Your task to perform on an android device: Open sound settings Image 0: 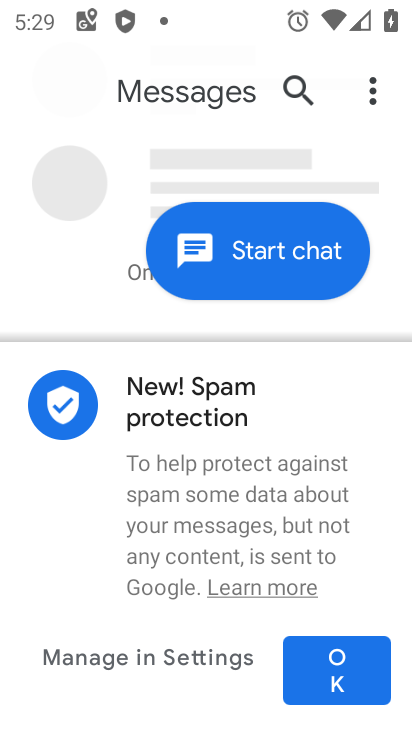
Step 0: press home button
Your task to perform on an android device: Open sound settings Image 1: 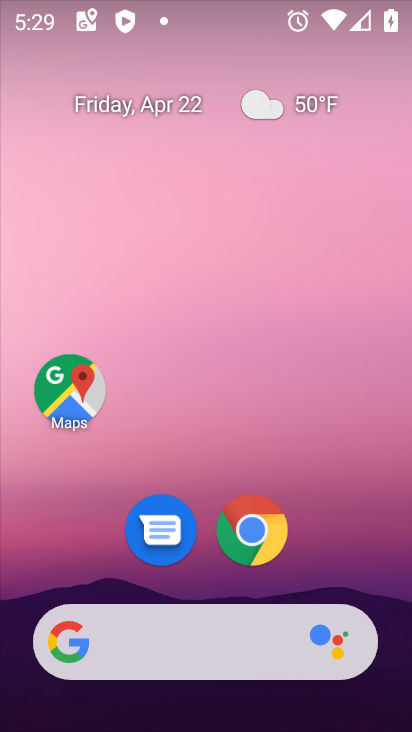
Step 1: drag from (302, 563) to (352, 157)
Your task to perform on an android device: Open sound settings Image 2: 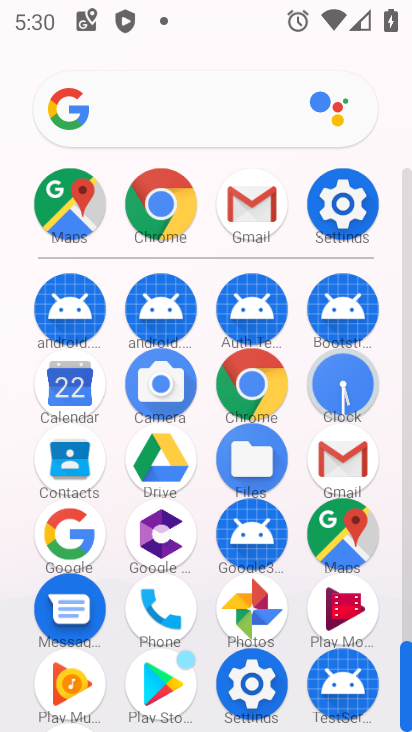
Step 2: click (350, 225)
Your task to perform on an android device: Open sound settings Image 3: 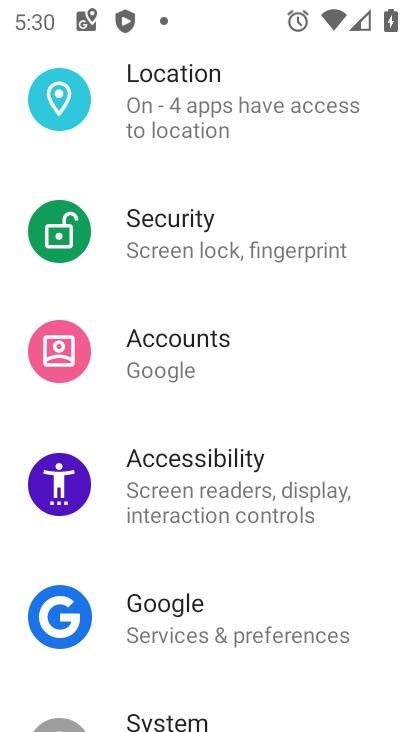
Step 3: drag from (344, 599) to (377, 239)
Your task to perform on an android device: Open sound settings Image 4: 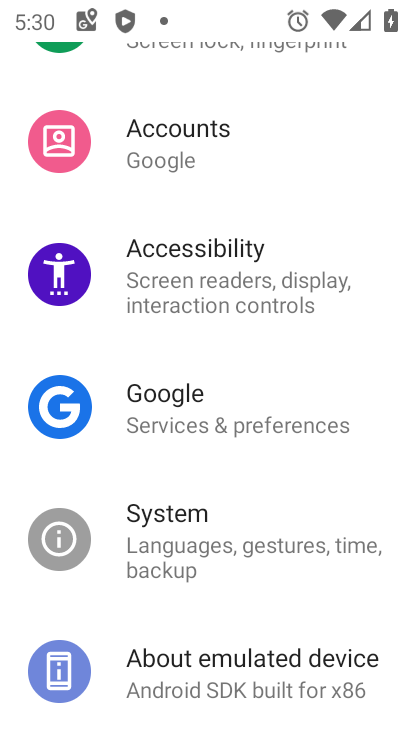
Step 4: drag from (350, 133) to (323, 596)
Your task to perform on an android device: Open sound settings Image 5: 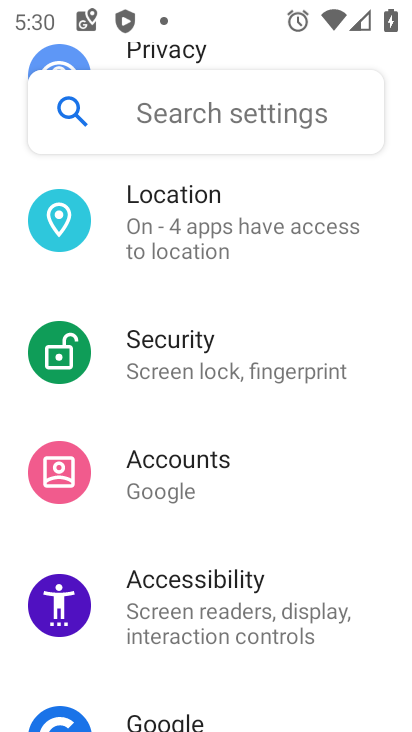
Step 5: drag from (334, 232) to (285, 592)
Your task to perform on an android device: Open sound settings Image 6: 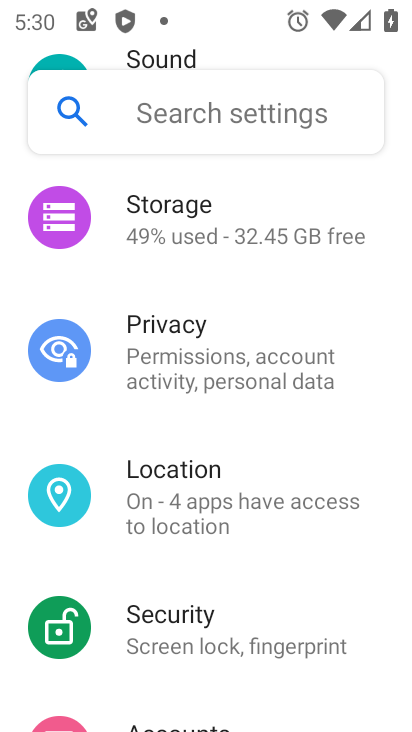
Step 6: drag from (312, 211) to (245, 596)
Your task to perform on an android device: Open sound settings Image 7: 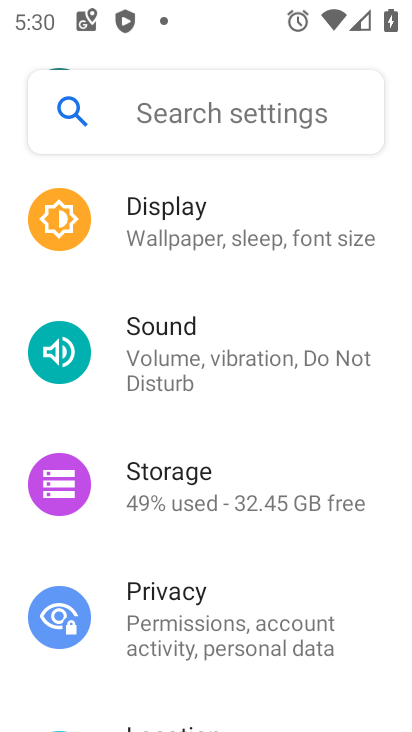
Step 7: click (158, 356)
Your task to perform on an android device: Open sound settings Image 8: 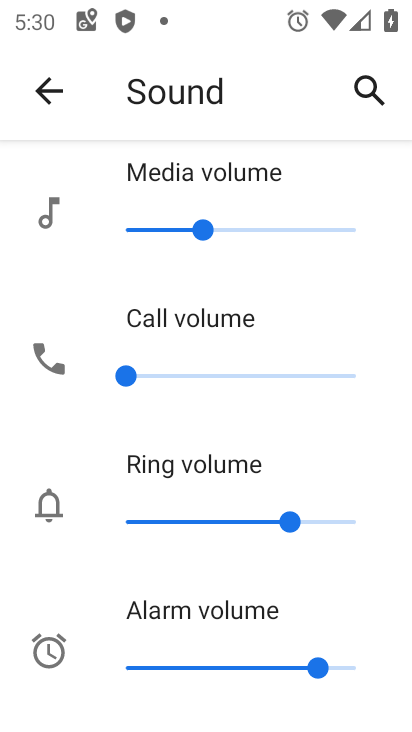
Step 8: task complete